Your task to perform on an android device: Check the weather Image 0: 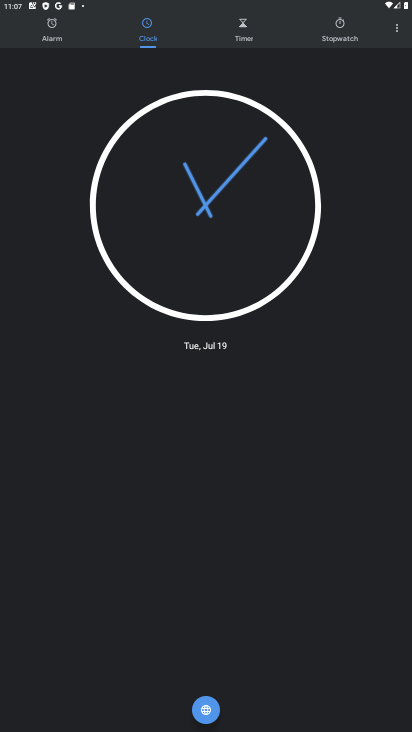
Step 0: press home button
Your task to perform on an android device: Check the weather Image 1: 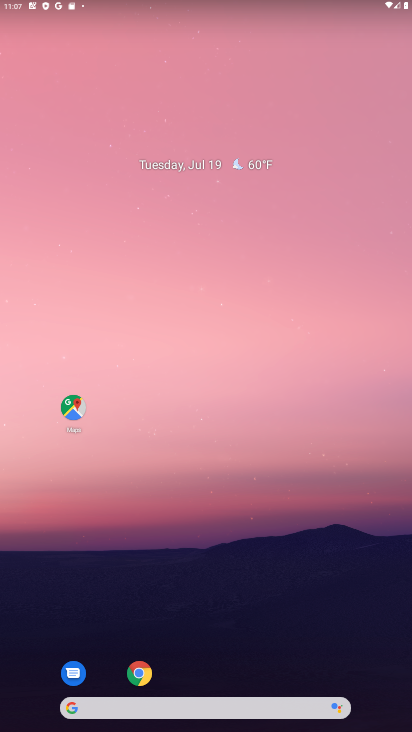
Step 1: click (249, 167)
Your task to perform on an android device: Check the weather Image 2: 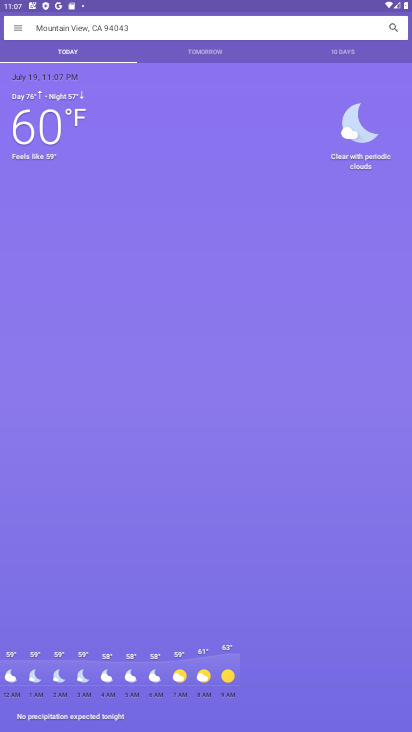
Step 2: task complete